Your task to perform on an android device: See recent photos Image 0: 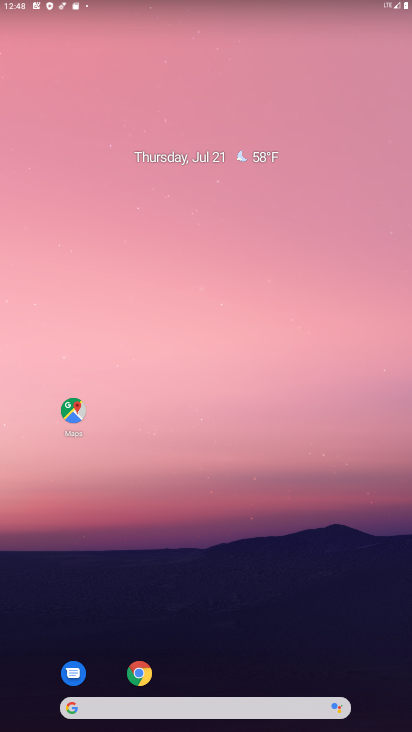
Step 0: drag from (262, 671) to (278, 288)
Your task to perform on an android device: See recent photos Image 1: 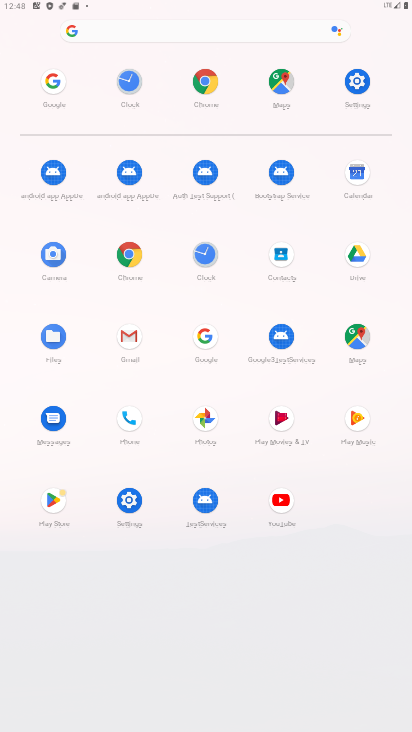
Step 1: click (210, 414)
Your task to perform on an android device: See recent photos Image 2: 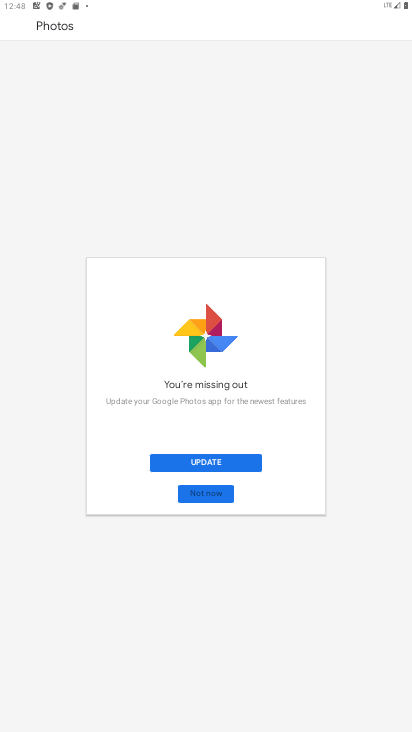
Step 2: click (199, 463)
Your task to perform on an android device: See recent photos Image 3: 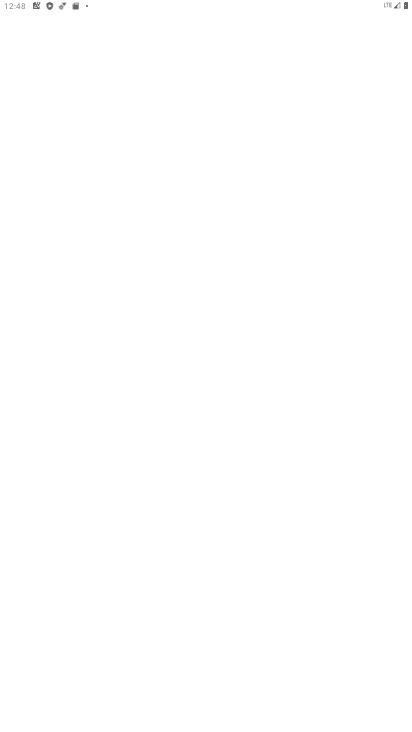
Step 3: press back button
Your task to perform on an android device: See recent photos Image 4: 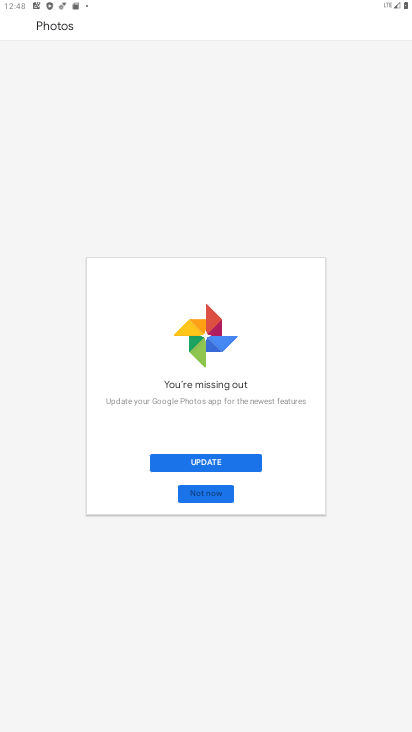
Step 4: click (203, 490)
Your task to perform on an android device: See recent photos Image 5: 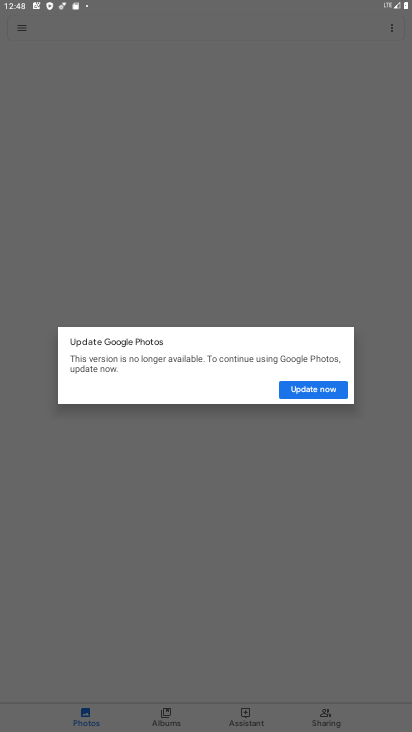
Step 5: click (319, 254)
Your task to perform on an android device: See recent photos Image 6: 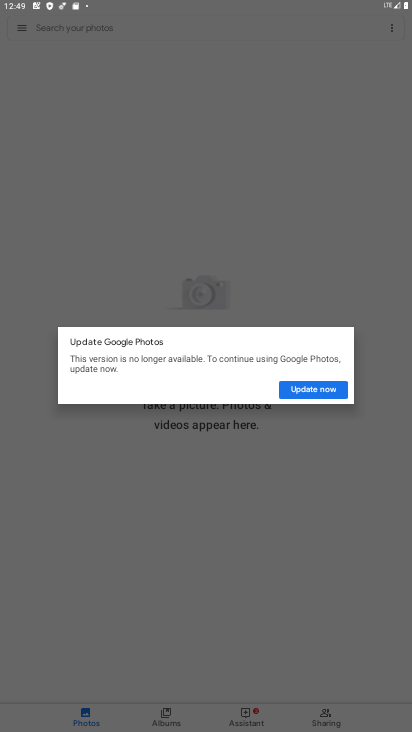
Step 6: task complete